Your task to perform on an android device: Open the stopwatch Image 0: 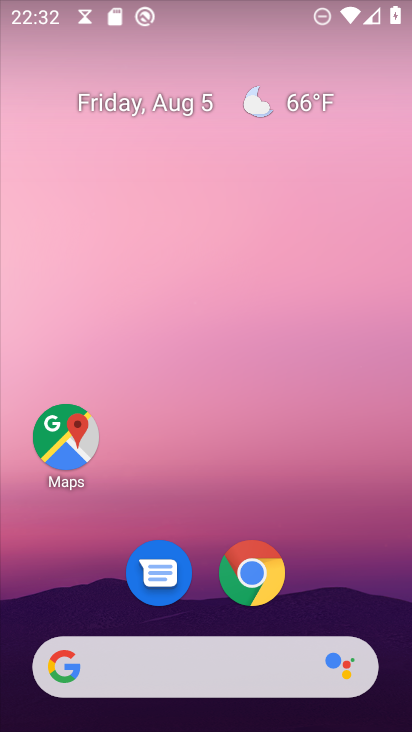
Step 0: drag from (179, 671) to (294, 117)
Your task to perform on an android device: Open the stopwatch Image 1: 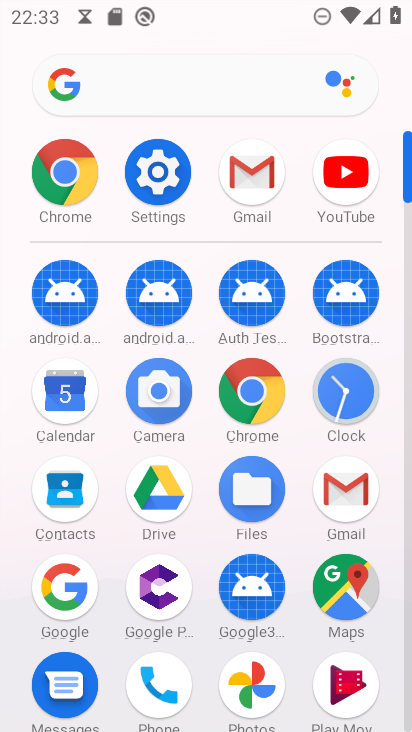
Step 1: click (345, 389)
Your task to perform on an android device: Open the stopwatch Image 2: 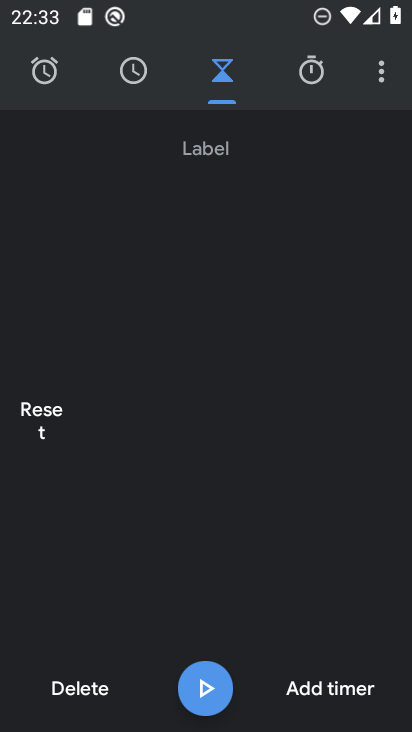
Step 2: click (313, 77)
Your task to perform on an android device: Open the stopwatch Image 3: 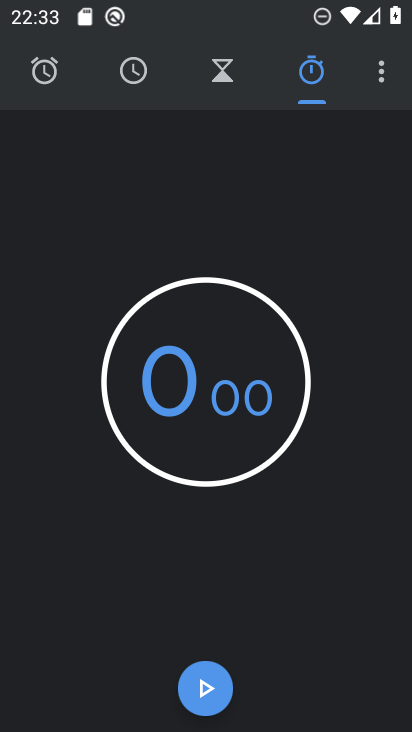
Step 3: task complete